Your task to perform on an android device: turn off location history Image 0: 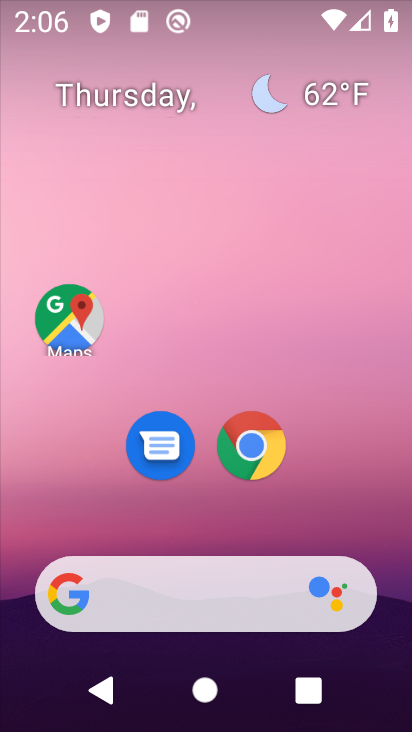
Step 0: drag from (384, 651) to (387, 223)
Your task to perform on an android device: turn off location history Image 1: 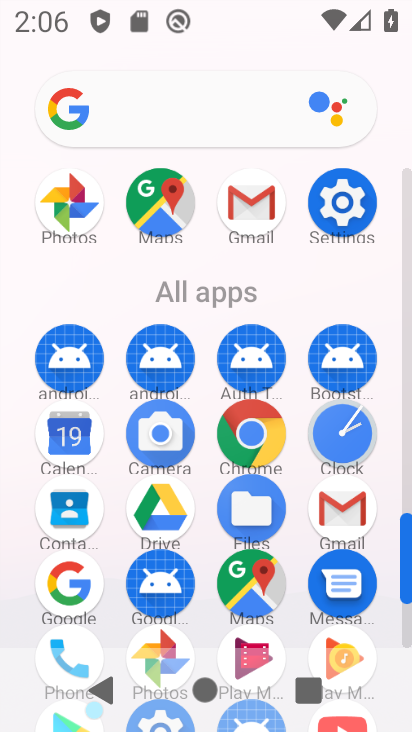
Step 1: click (314, 202)
Your task to perform on an android device: turn off location history Image 2: 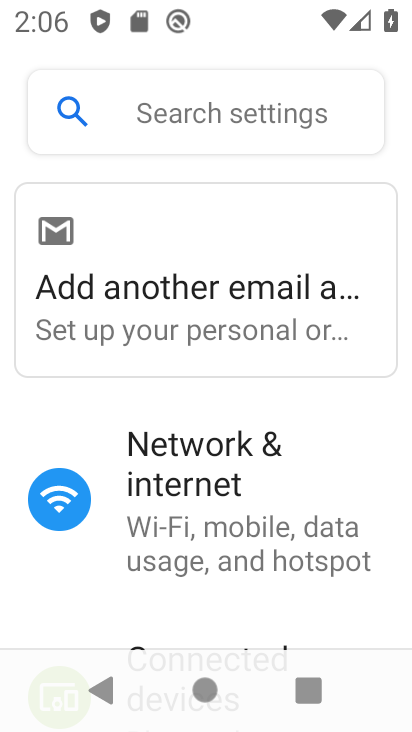
Step 2: drag from (354, 620) to (383, 298)
Your task to perform on an android device: turn off location history Image 3: 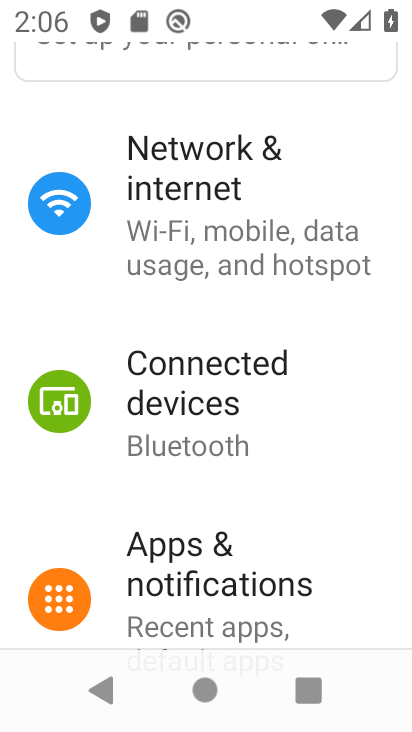
Step 3: drag from (380, 609) to (378, 239)
Your task to perform on an android device: turn off location history Image 4: 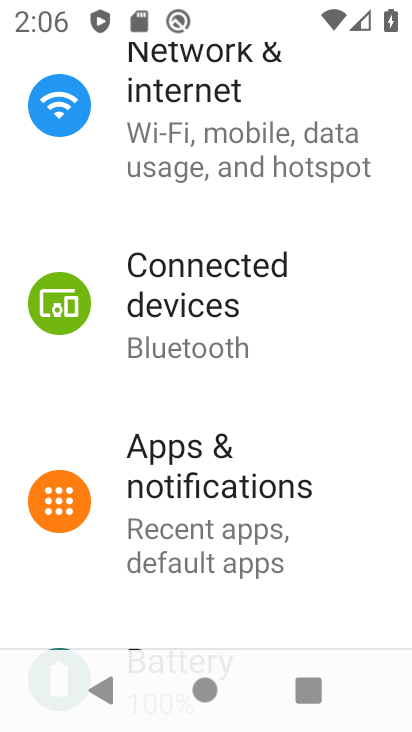
Step 4: drag from (348, 615) to (356, 350)
Your task to perform on an android device: turn off location history Image 5: 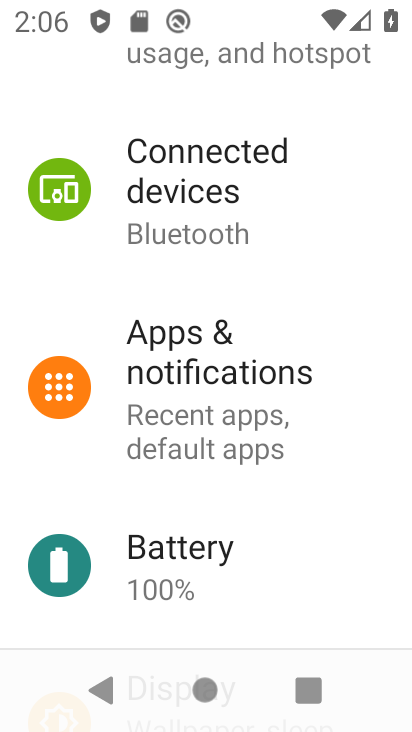
Step 5: drag from (364, 623) to (367, 280)
Your task to perform on an android device: turn off location history Image 6: 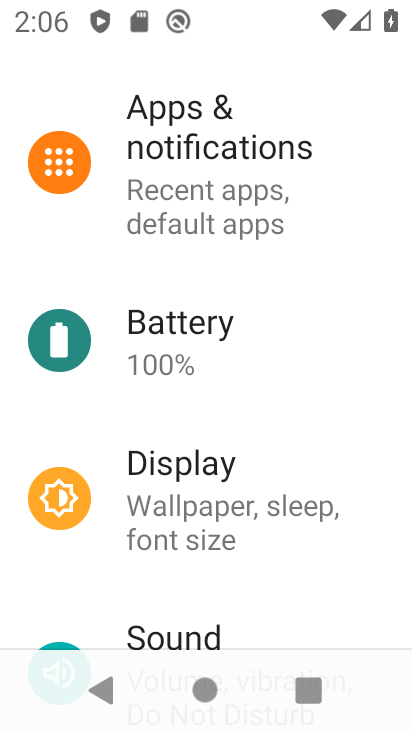
Step 6: drag from (353, 628) to (394, 328)
Your task to perform on an android device: turn off location history Image 7: 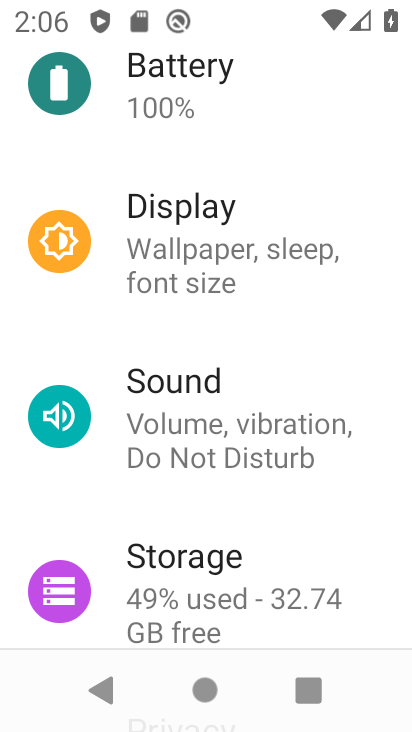
Step 7: drag from (379, 632) to (392, 38)
Your task to perform on an android device: turn off location history Image 8: 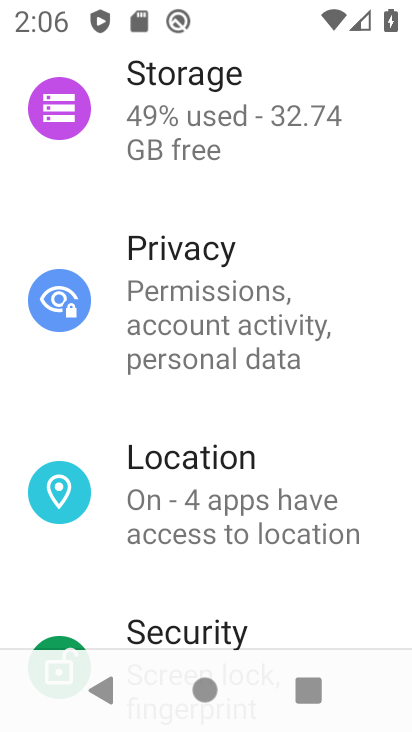
Step 8: click (182, 472)
Your task to perform on an android device: turn off location history Image 9: 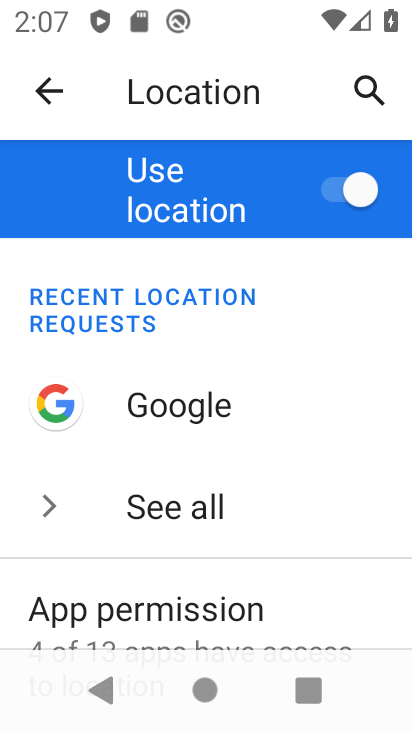
Step 9: drag from (303, 594) to (256, 211)
Your task to perform on an android device: turn off location history Image 10: 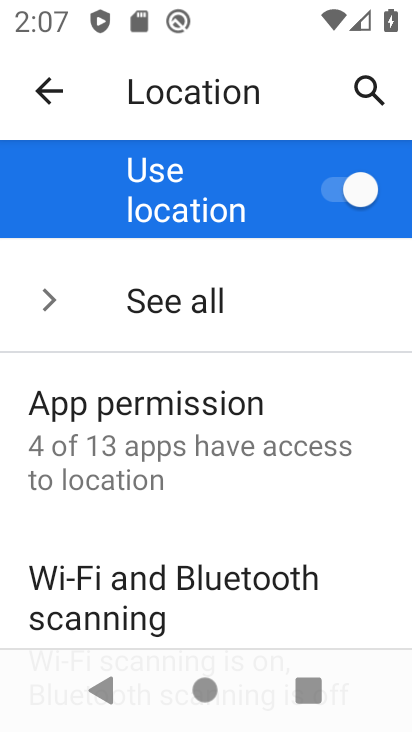
Step 10: drag from (295, 624) to (284, 228)
Your task to perform on an android device: turn off location history Image 11: 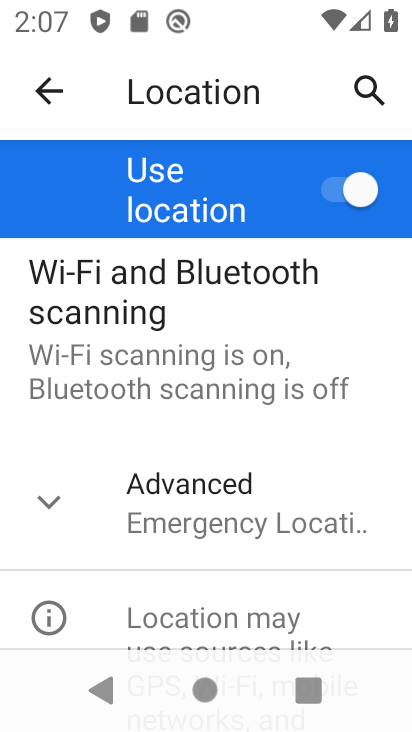
Step 11: drag from (334, 623) to (340, 251)
Your task to perform on an android device: turn off location history Image 12: 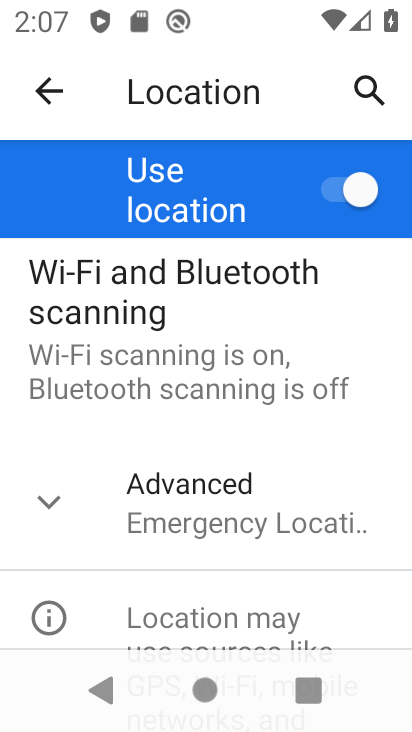
Step 12: click (51, 497)
Your task to perform on an android device: turn off location history Image 13: 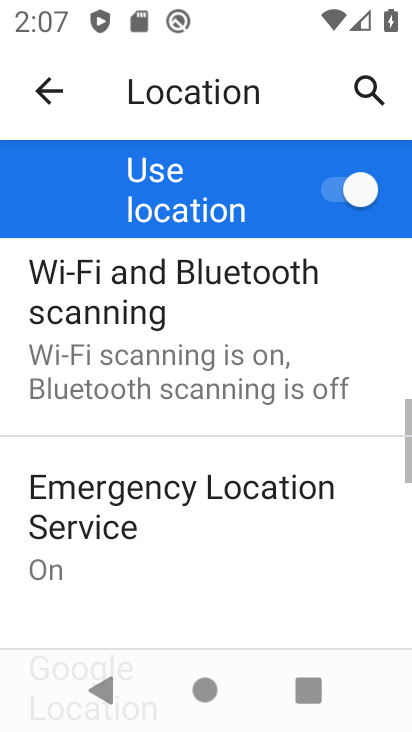
Step 13: click (42, 501)
Your task to perform on an android device: turn off location history Image 14: 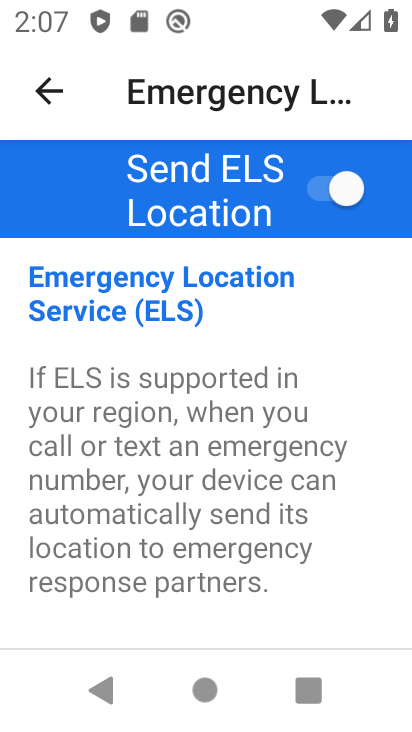
Step 14: press back button
Your task to perform on an android device: turn off location history Image 15: 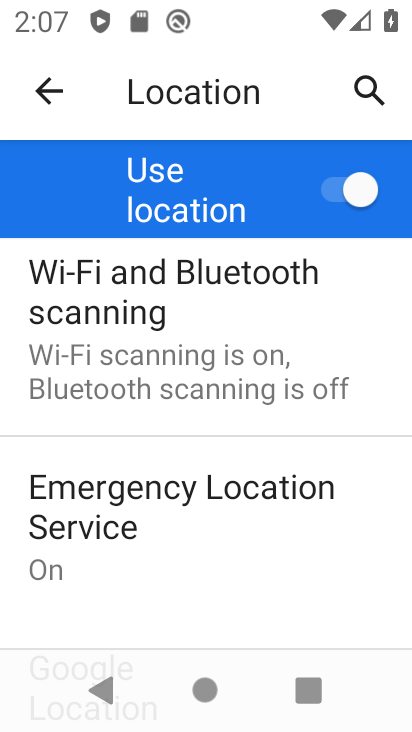
Step 15: drag from (267, 622) to (240, 323)
Your task to perform on an android device: turn off location history Image 16: 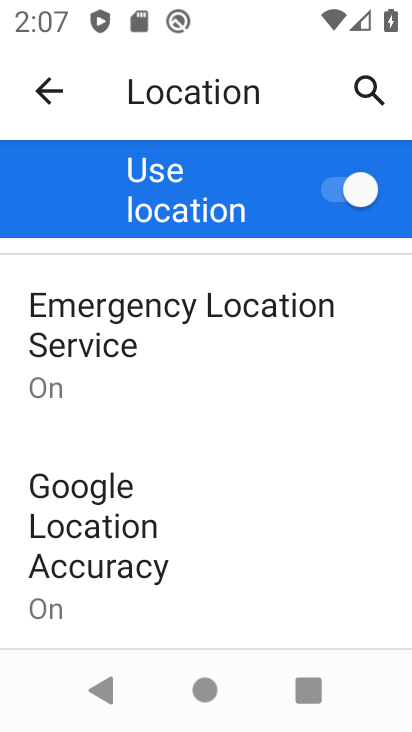
Step 16: drag from (237, 608) to (219, 381)
Your task to perform on an android device: turn off location history Image 17: 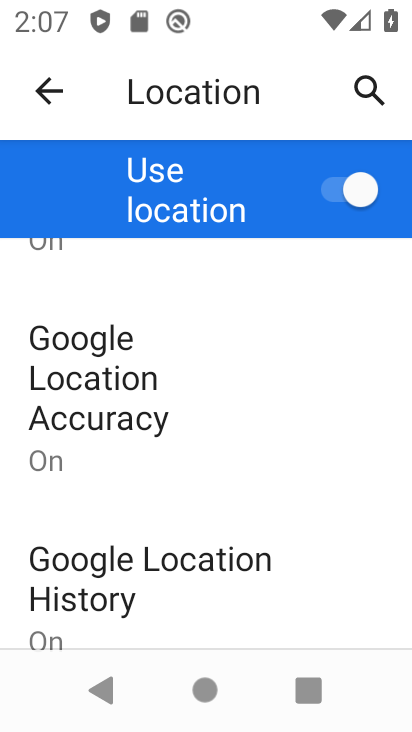
Step 17: click (75, 588)
Your task to perform on an android device: turn off location history Image 18: 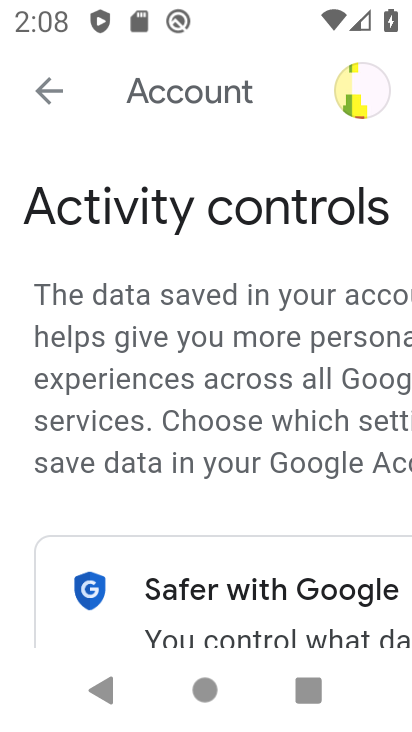
Step 18: drag from (246, 613) to (219, 426)
Your task to perform on an android device: turn off location history Image 19: 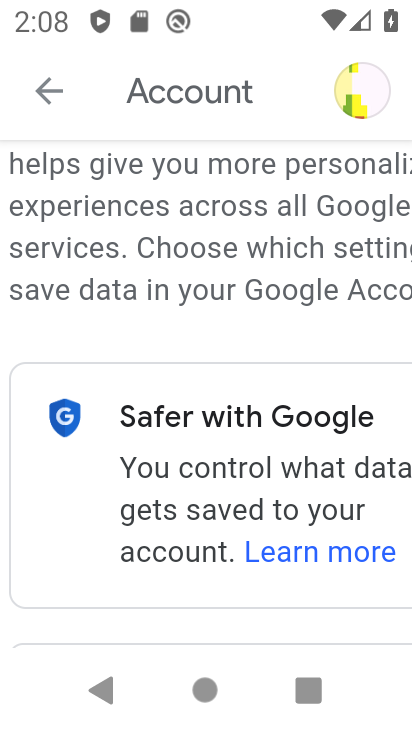
Step 19: drag from (262, 622) to (230, 426)
Your task to perform on an android device: turn off location history Image 20: 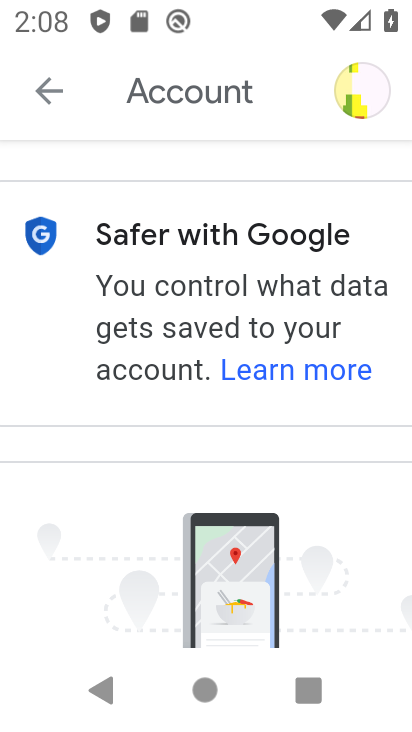
Step 20: drag from (277, 618) to (280, 421)
Your task to perform on an android device: turn off location history Image 21: 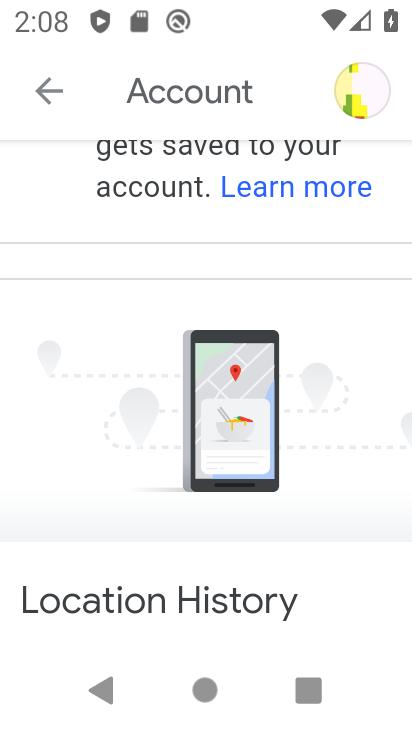
Step 21: drag from (256, 613) to (247, 376)
Your task to perform on an android device: turn off location history Image 22: 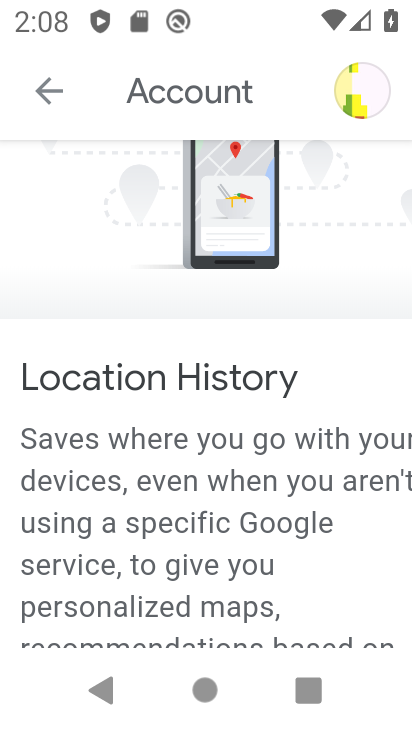
Step 22: drag from (223, 628) to (211, 155)
Your task to perform on an android device: turn off location history Image 23: 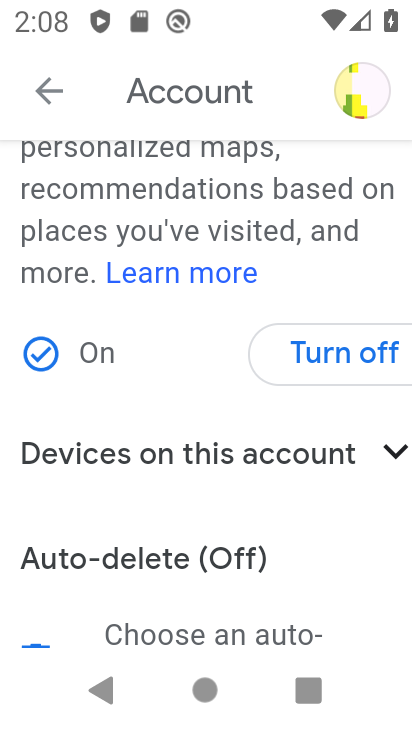
Step 23: click (351, 367)
Your task to perform on an android device: turn off location history Image 24: 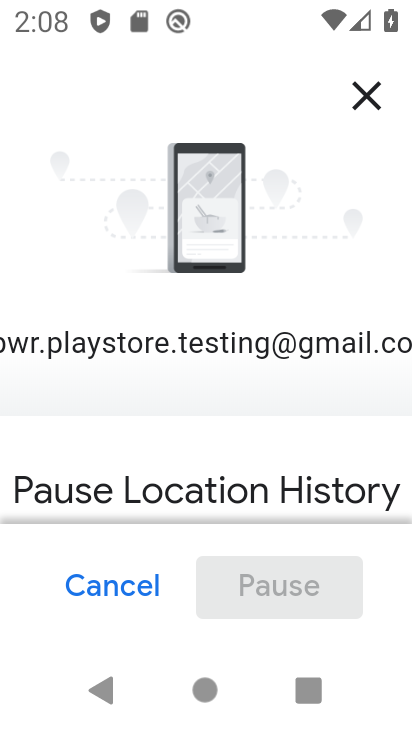
Step 24: drag from (173, 501) to (176, 214)
Your task to perform on an android device: turn off location history Image 25: 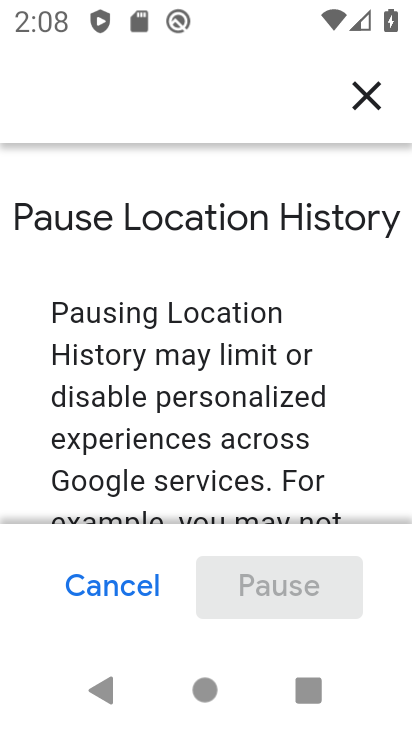
Step 25: drag from (180, 499) to (198, 219)
Your task to perform on an android device: turn off location history Image 26: 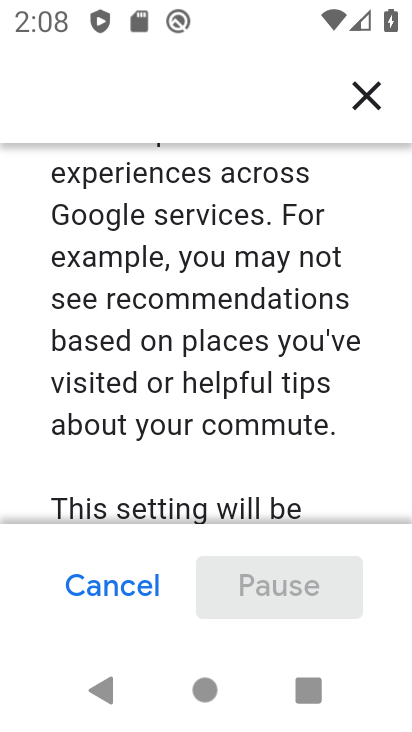
Step 26: drag from (202, 467) to (191, 273)
Your task to perform on an android device: turn off location history Image 27: 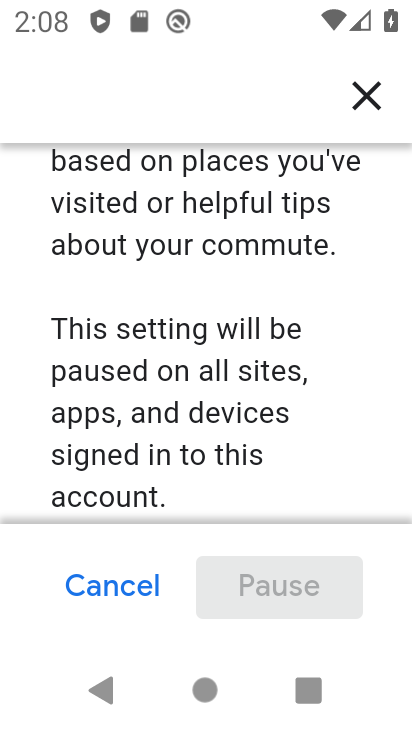
Step 27: drag from (182, 498) to (175, 267)
Your task to perform on an android device: turn off location history Image 28: 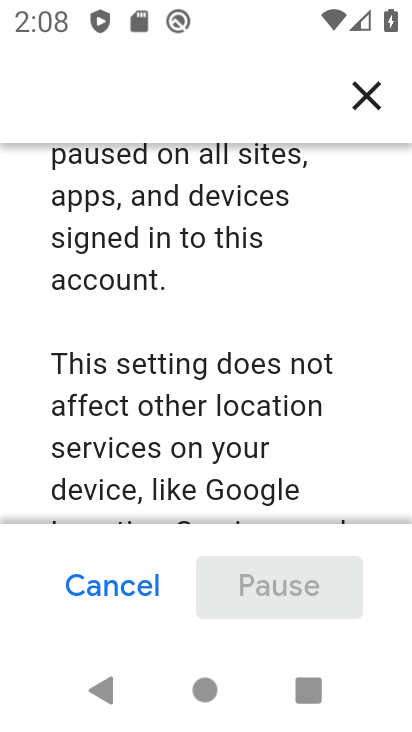
Step 28: drag from (178, 503) to (180, 329)
Your task to perform on an android device: turn off location history Image 29: 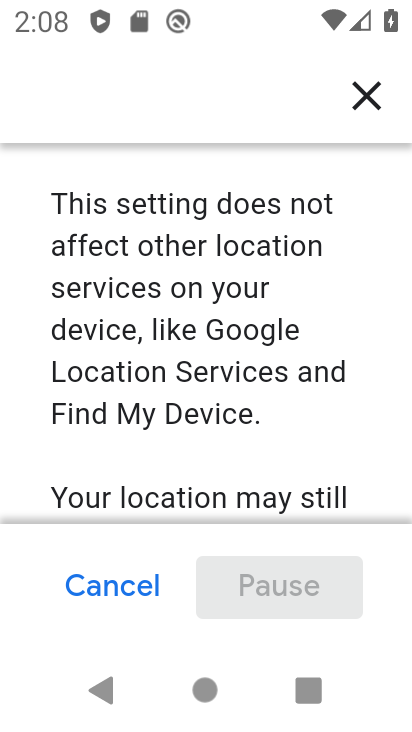
Step 29: drag from (184, 495) to (177, 393)
Your task to perform on an android device: turn off location history Image 30: 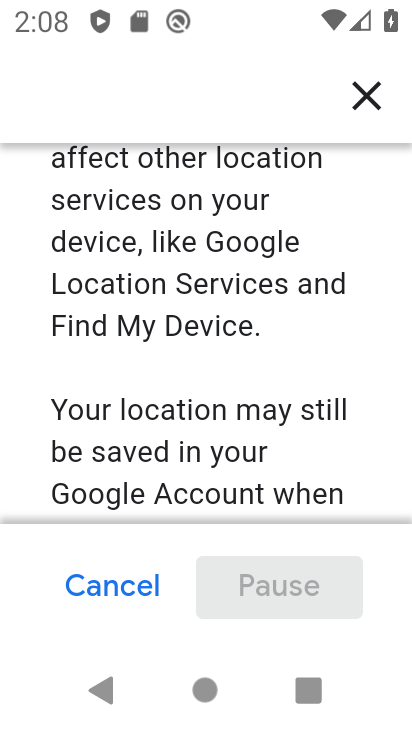
Step 30: drag from (215, 496) to (202, 245)
Your task to perform on an android device: turn off location history Image 31: 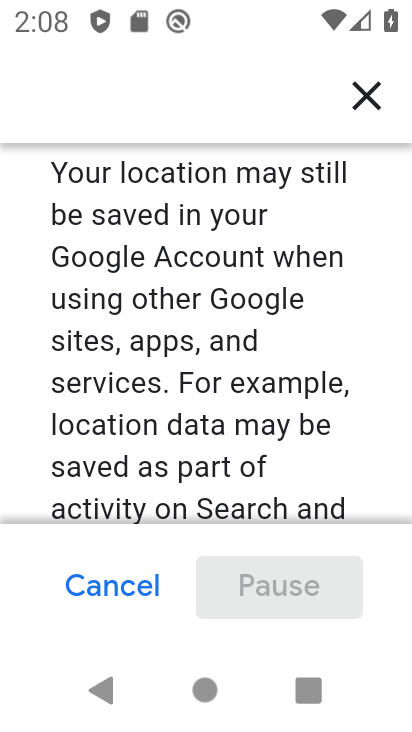
Step 31: drag from (226, 507) to (216, 11)
Your task to perform on an android device: turn off location history Image 32: 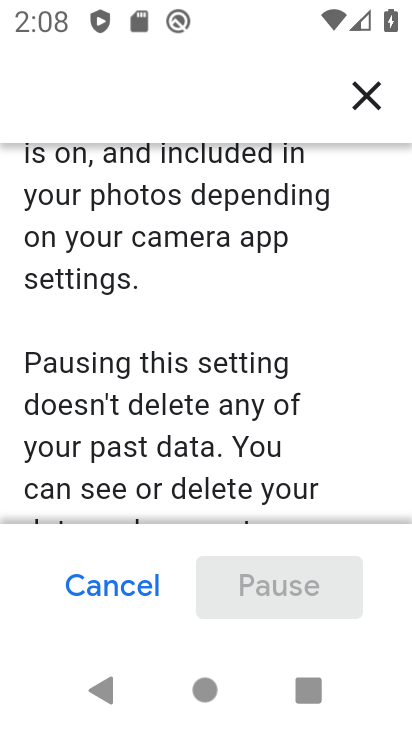
Step 32: drag from (213, 505) to (201, 150)
Your task to perform on an android device: turn off location history Image 33: 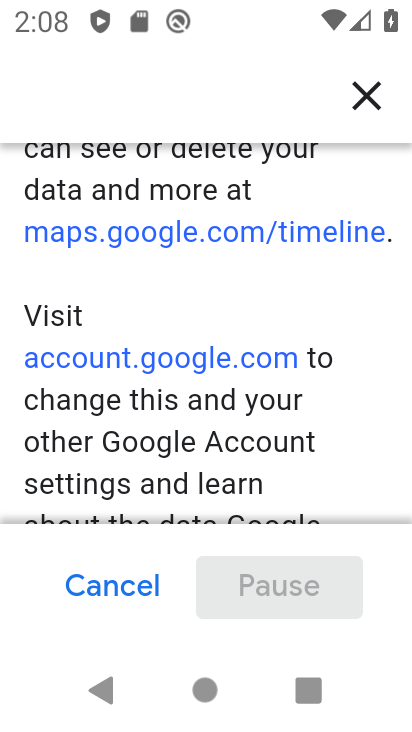
Step 33: drag from (189, 512) to (172, 118)
Your task to perform on an android device: turn off location history Image 34: 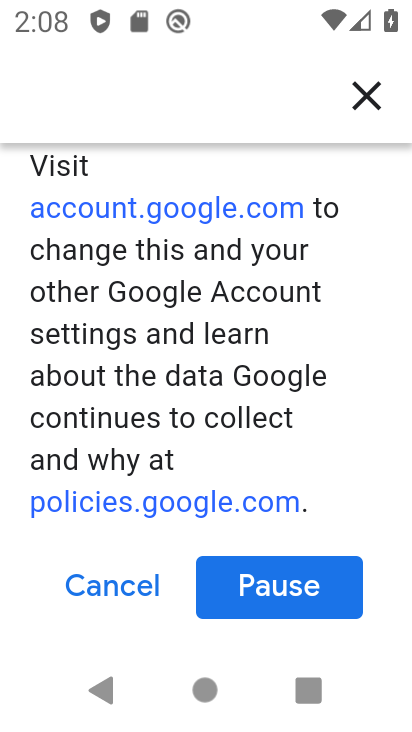
Step 34: click (269, 594)
Your task to perform on an android device: turn off location history Image 35: 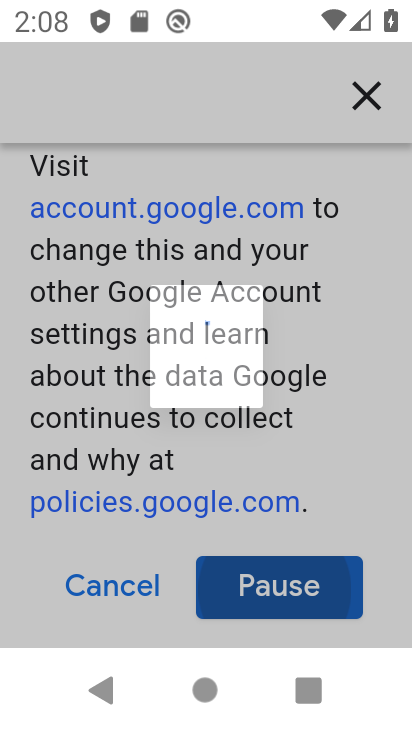
Step 35: drag from (167, 511) to (156, 253)
Your task to perform on an android device: turn off location history Image 36: 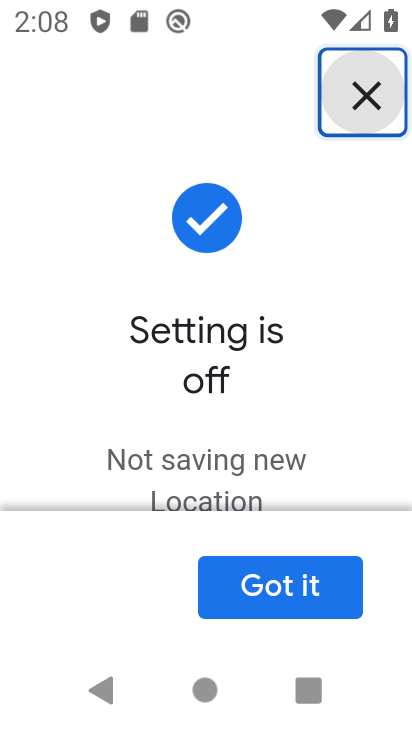
Step 36: click (289, 587)
Your task to perform on an android device: turn off location history Image 37: 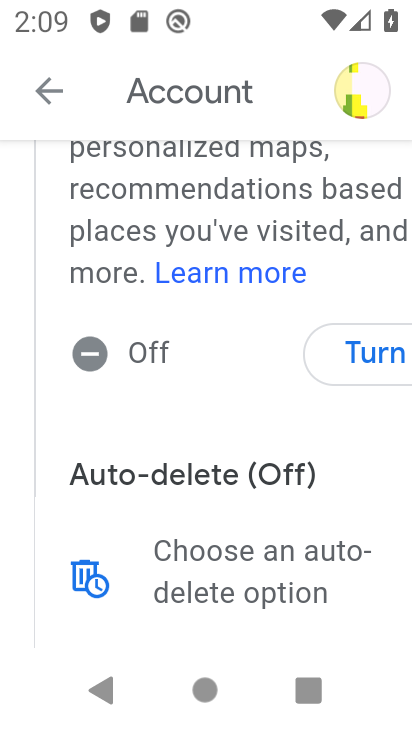
Step 37: task complete